Your task to perform on an android device: Open wifi settings Image 0: 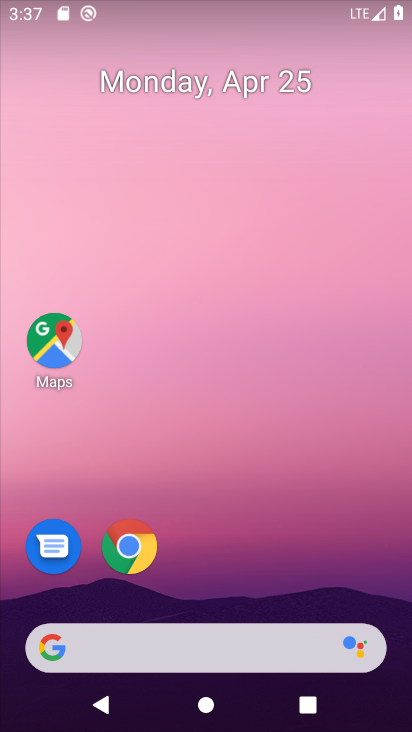
Step 0: drag from (229, 582) to (344, 102)
Your task to perform on an android device: Open wifi settings Image 1: 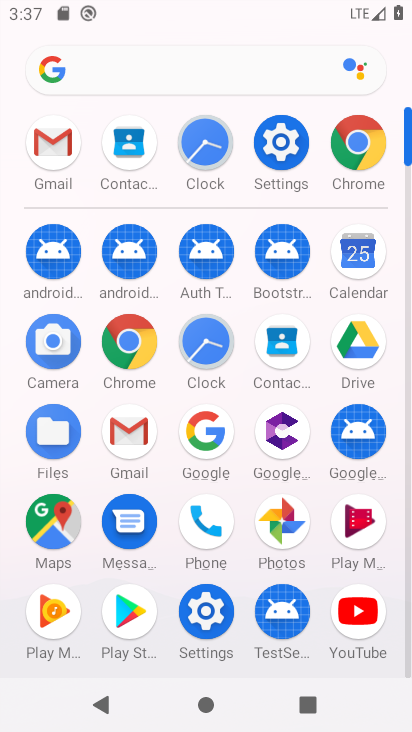
Step 1: click (280, 141)
Your task to perform on an android device: Open wifi settings Image 2: 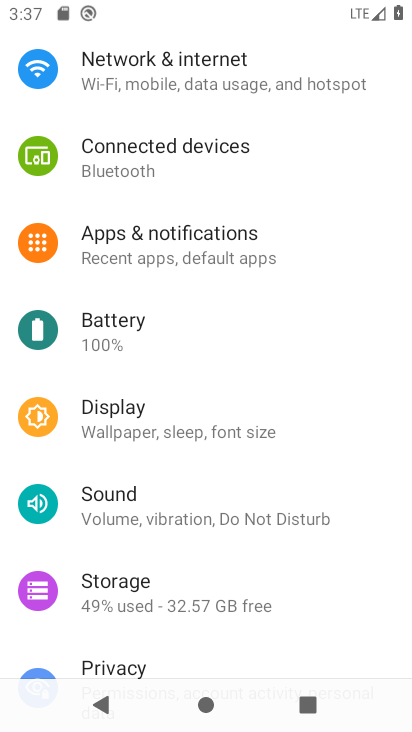
Step 2: click (300, 71)
Your task to perform on an android device: Open wifi settings Image 3: 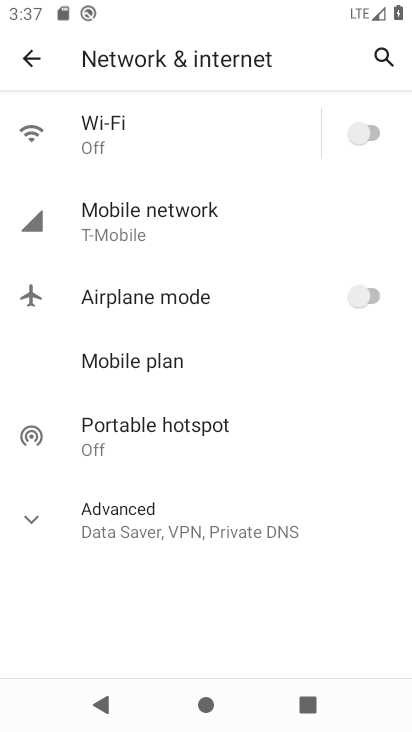
Step 3: click (66, 138)
Your task to perform on an android device: Open wifi settings Image 4: 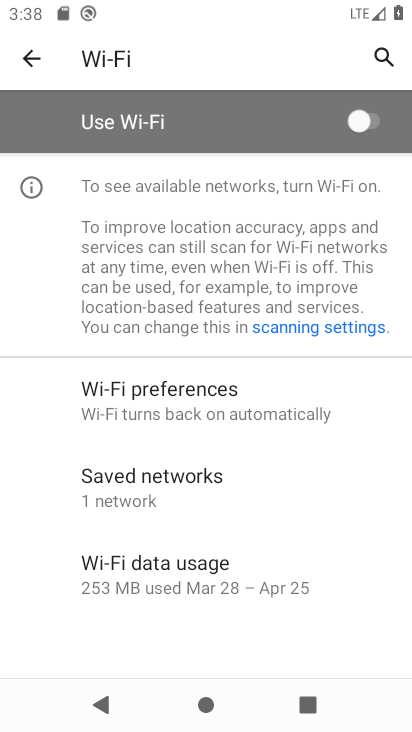
Step 4: task complete